Your task to perform on an android device: install app "AliExpress" Image 0: 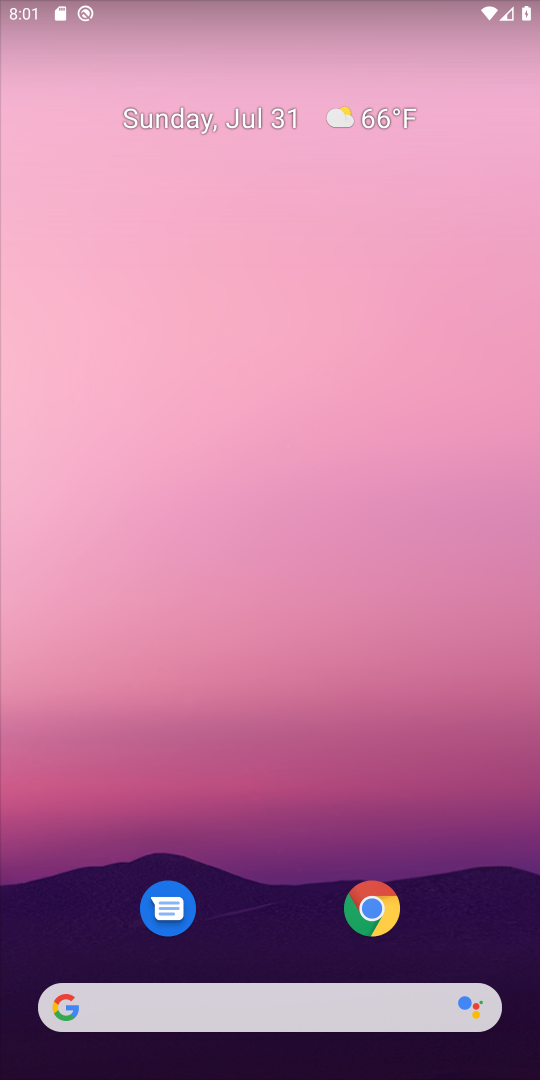
Step 0: drag from (189, 104) to (199, 3)
Your task to perform on an android device: install app "AliExpress" Image 1: 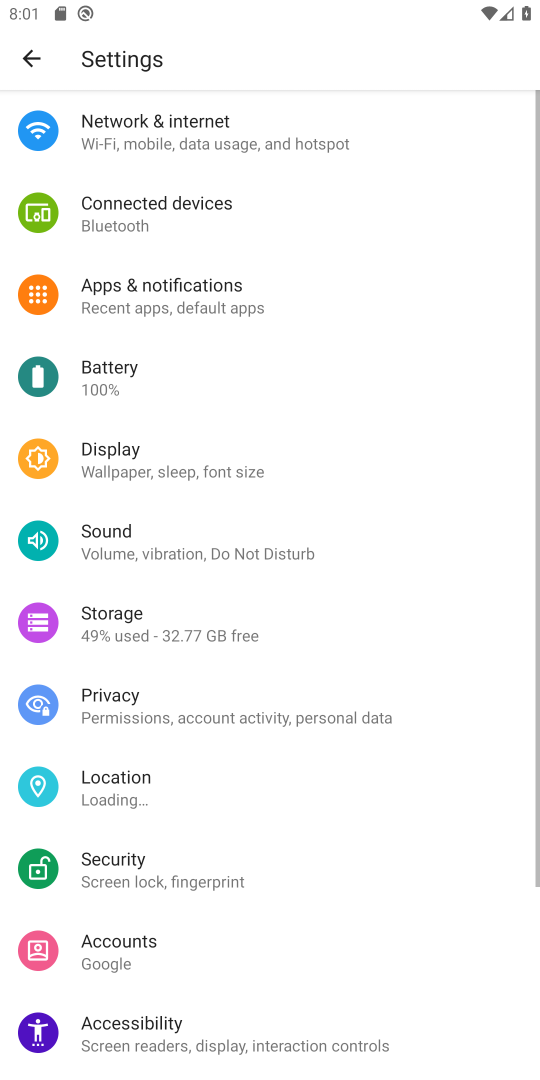
Step 1: press home button
Your task to perform on an android device: install app "AliExpress" Image 2: 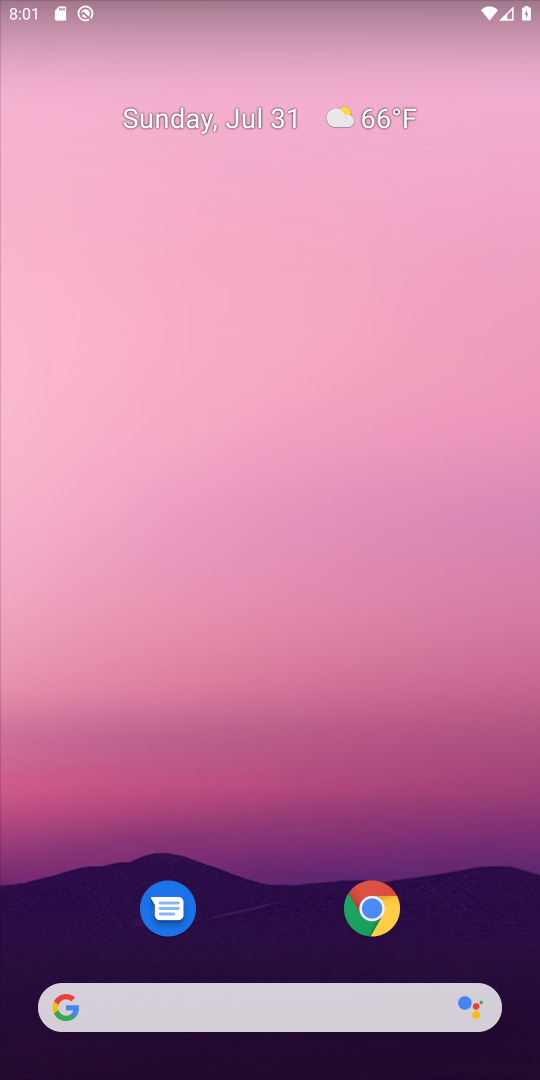
Step 2: drag from (337, 968) to (311, 10)
Your task to perform on an android device: install app "AliExpress" Image 3: 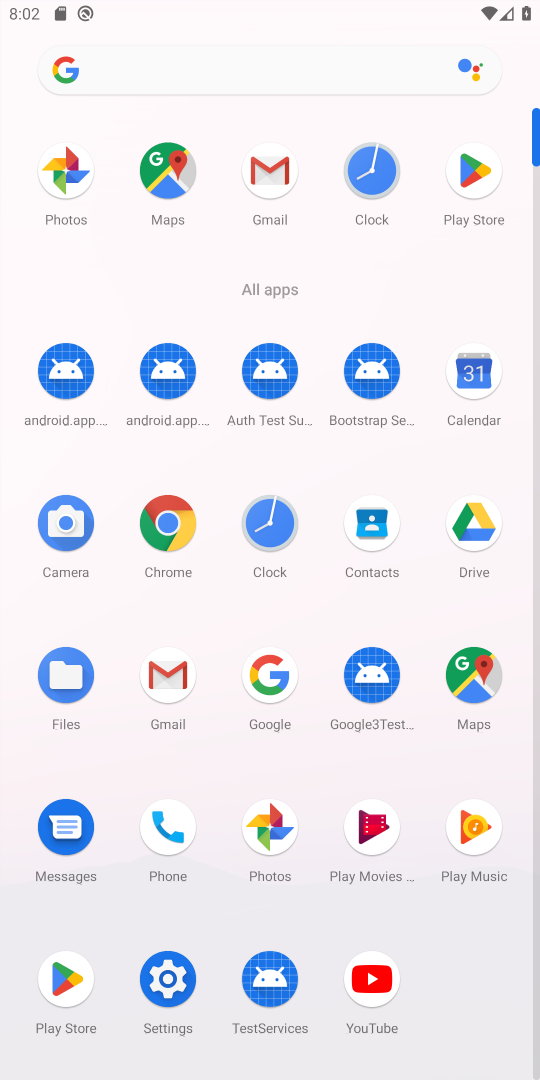
Step 3: click (68, 972)
Your task to perform on an android device: install app "AliExpress" Image 4: 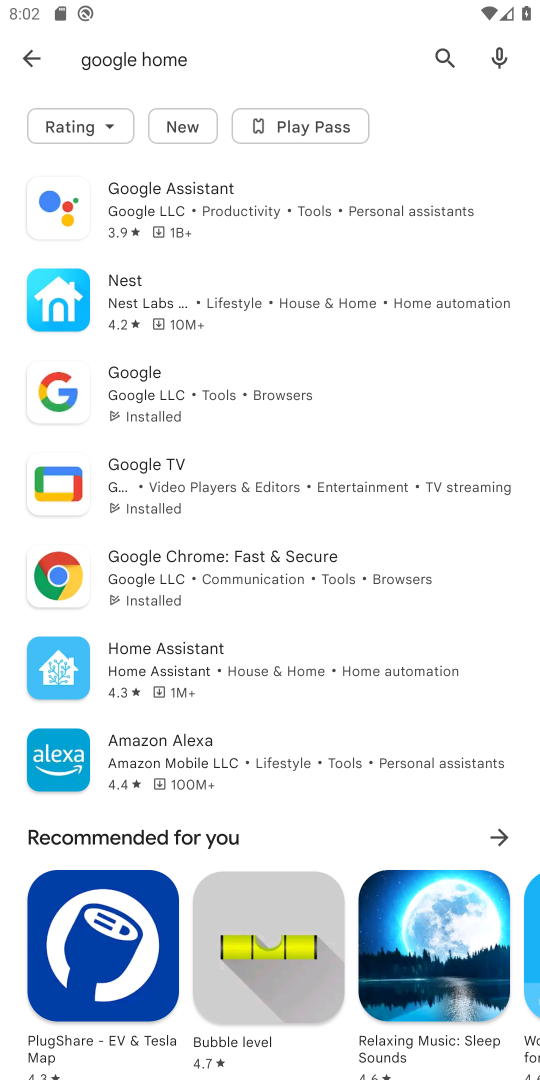
Step 4: click (397, 55)
Your task to perform on an android device: install app "AliExpress" Image 5: 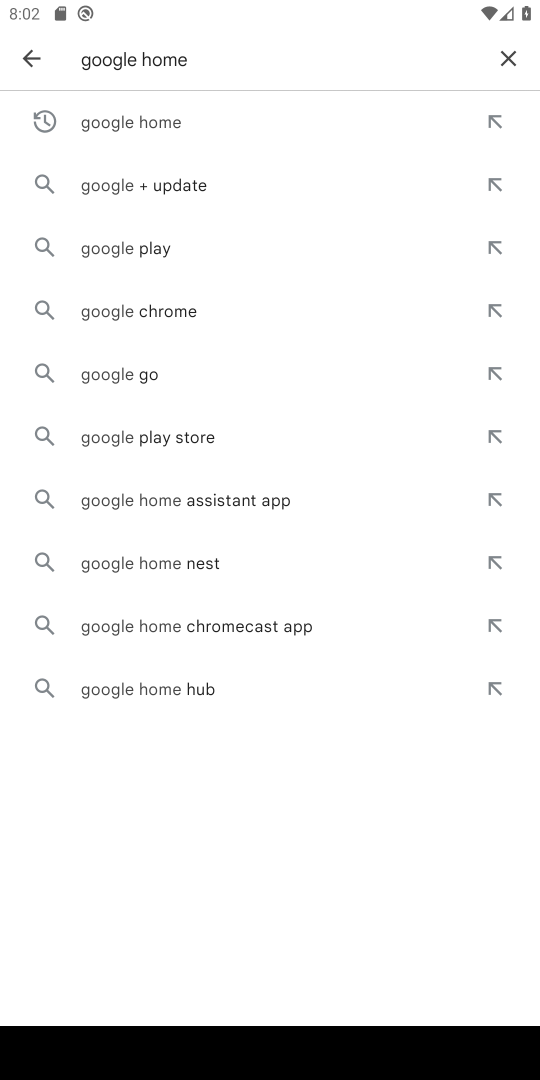
Step 5: click (506, 55)
Your task to perform on an android device: install app "AliExpress" Image 6: 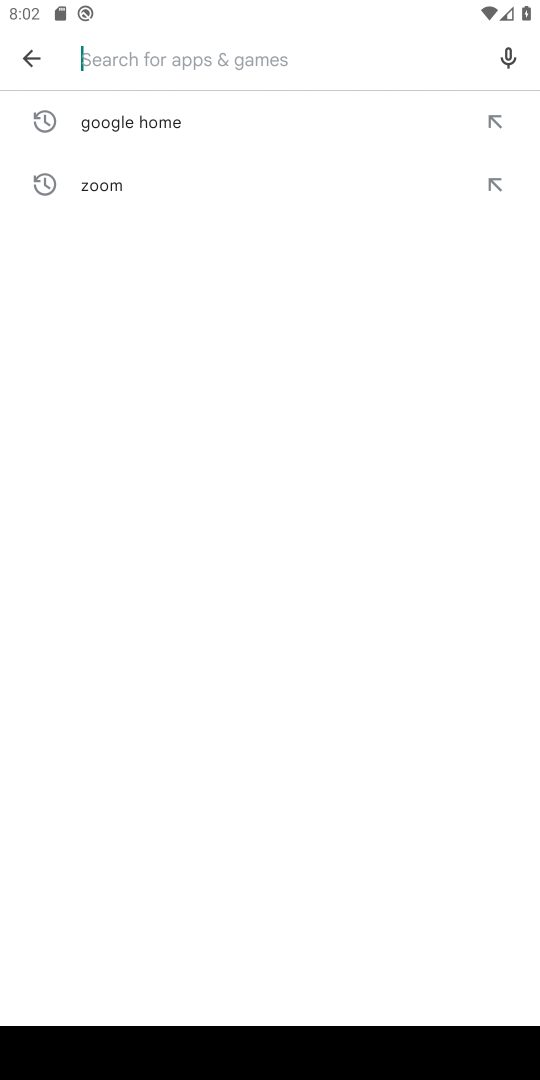
Step 6: type "aliexpress"
Your task to perform on an android device: install app "AliExpress" Image 7: 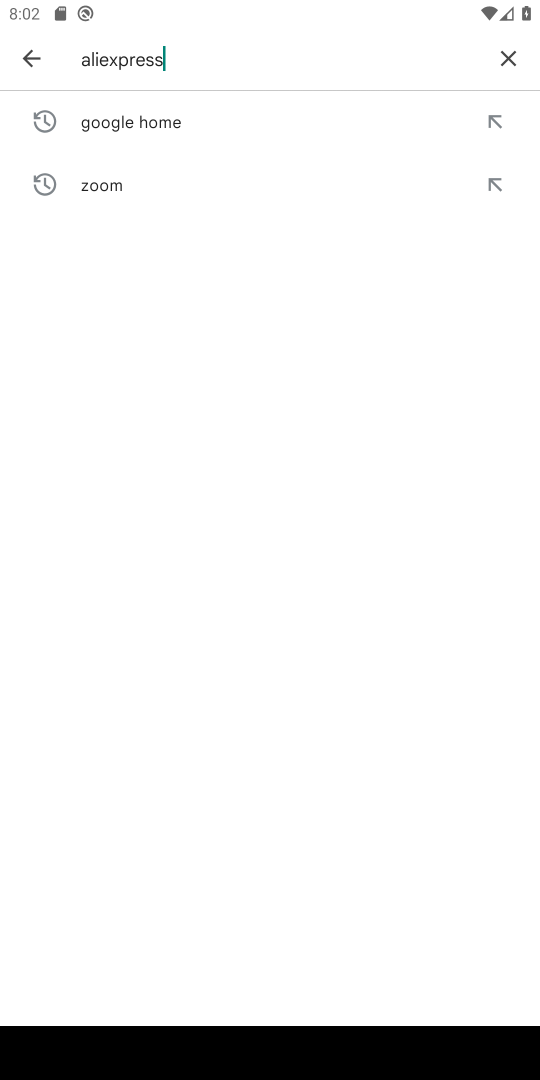
Step 7: type ""
Your task to perform on an android device: install app "AliExpress" Image 8: 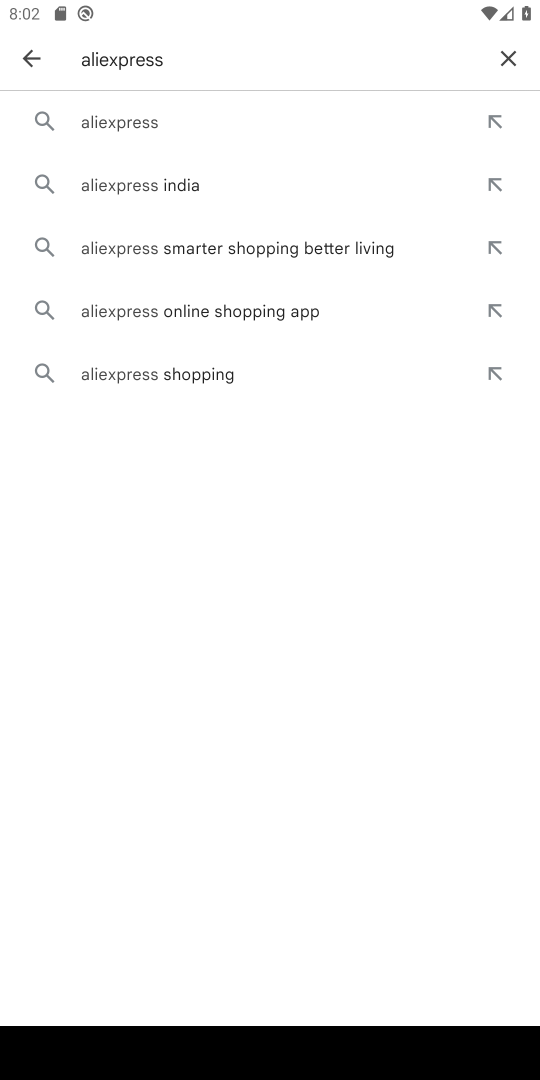
Step 8: click (344, 114)
Your task to perform on an android device: install app "AliExpress" Image 9: 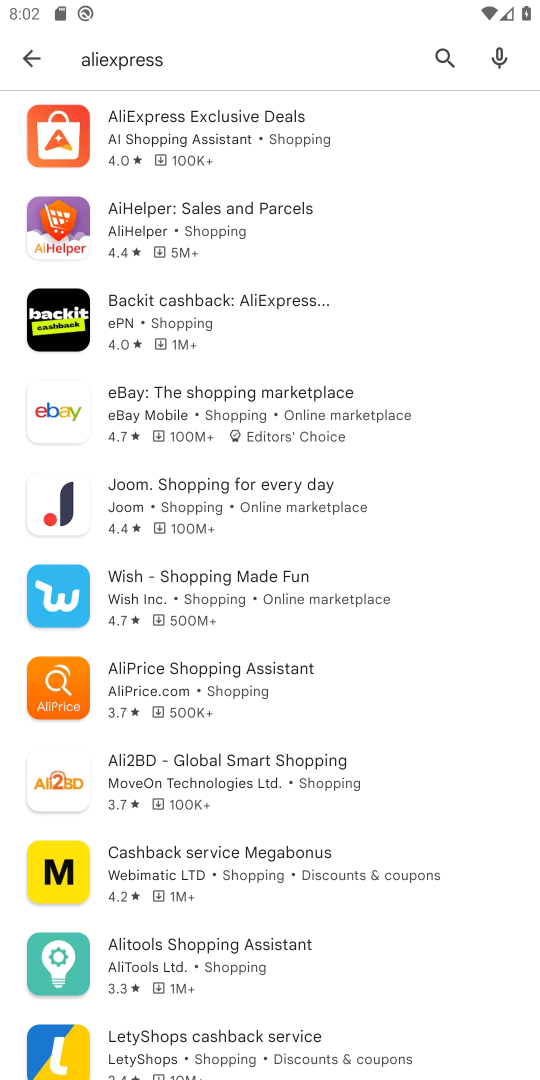
Step 9: click (340, 121)
Your task to perform on an android device: install app "AliExpress" Image 10: 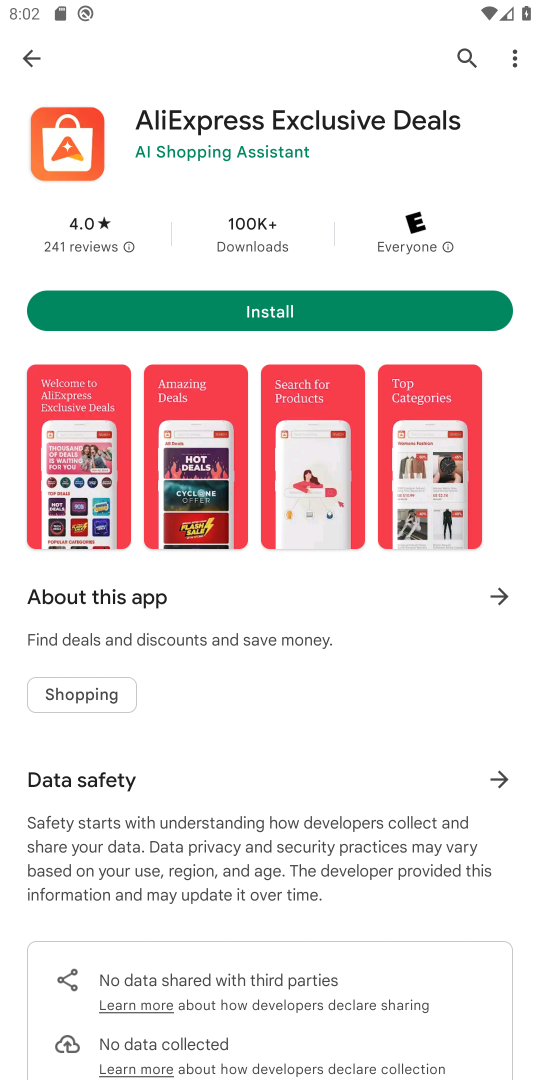
Step 10: click (356, 302)
Your task to perform on an android device: install app "AliExpress" Image 11: 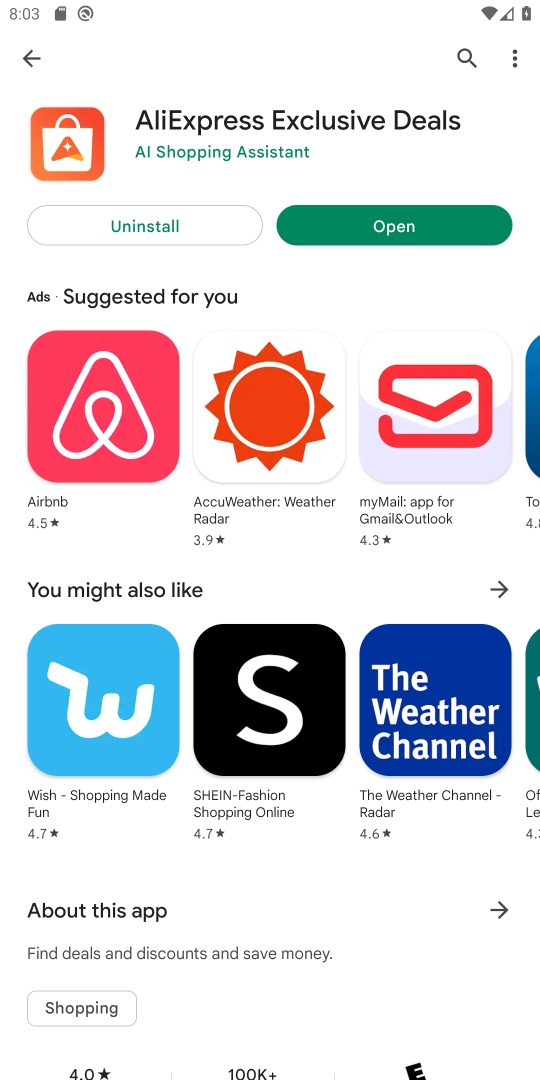
Step 11: click (401, 227)
Your task to perform on an android device: install app "AliExpress" Image 12: 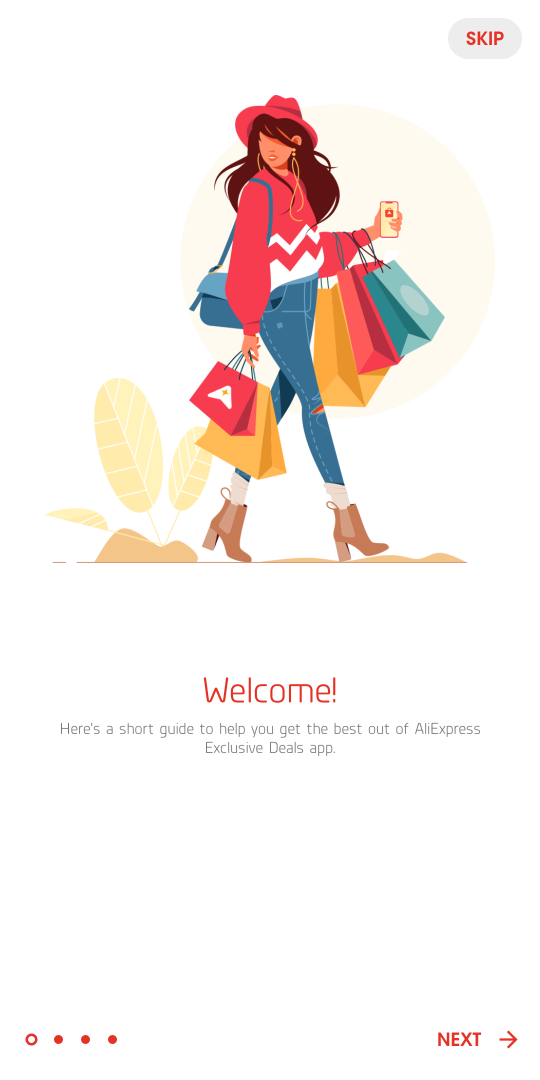
Step 12: task complete